Your task to perform on an android device: Go to settings Image 0: 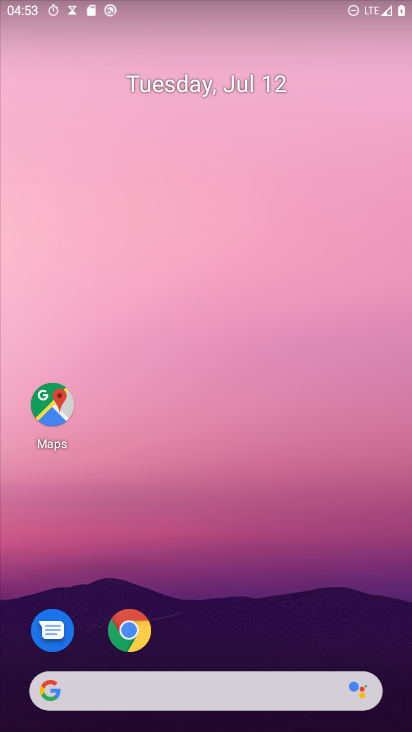
Step 0: drag from (294, 699) to (321, 3)
Your task to perform on an android device: Go to settings Image 1: 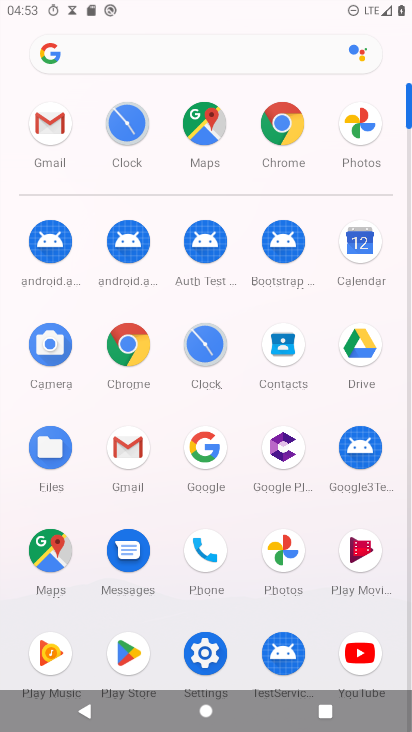
Step 1: click (204, 649)
Your task to perform on an android device: Go to settings Image 2: 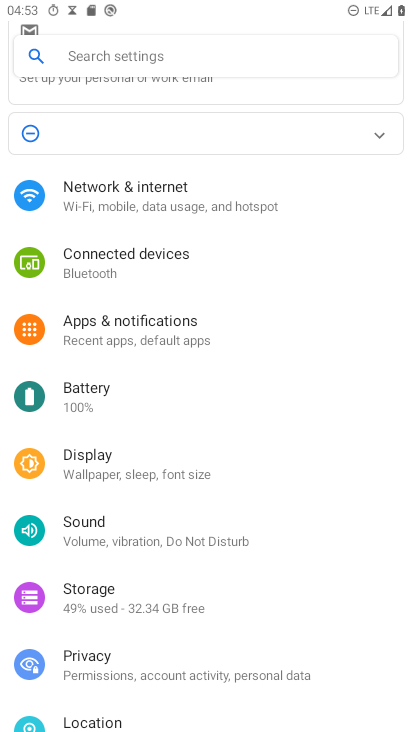
Step 2: task complete